Your task to perform on an android device: Go to display settings Image 0: 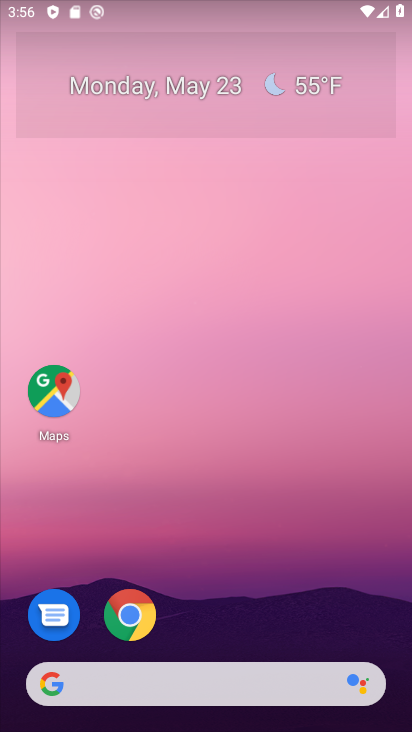
Step 0: drag from (385, 619) to (387, 132)
Your task to perform on an android device: Go to display settings Image 1: 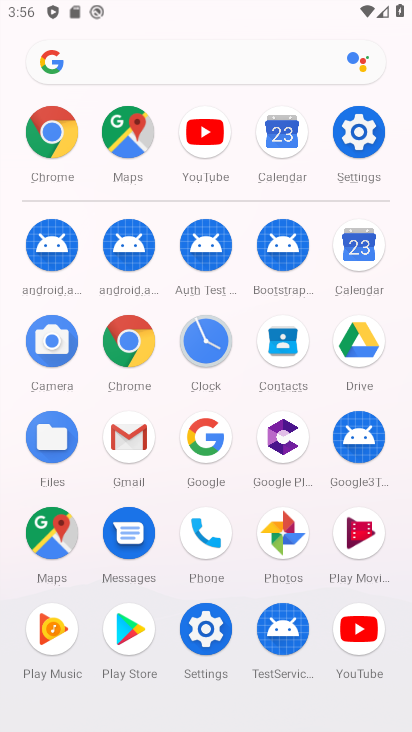
Step 1: click (213, 632)
Your task to perform on an android device: Go to display settings Image 2: 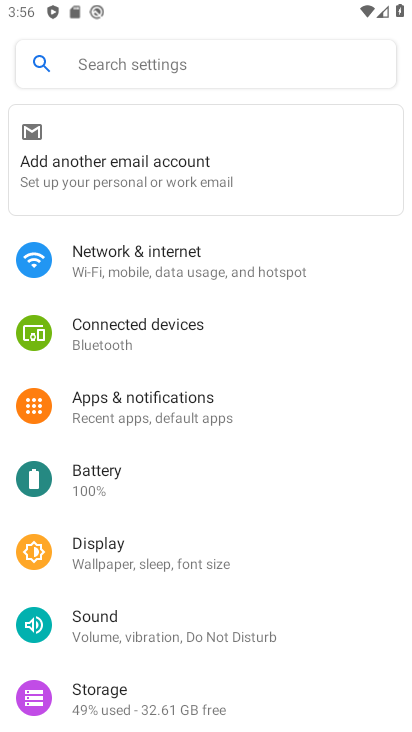
Step 2: drag from (348, 678) to (362, 561)
Your task to perform on an android device: Go to display settings Image 3: 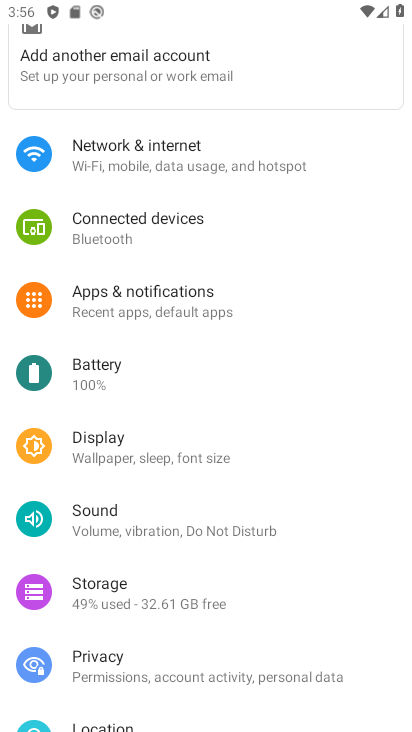
Step 3: drag from (350, 558) to (365, 421)
Your task to perform on an android device: Go to display settings Image 4: 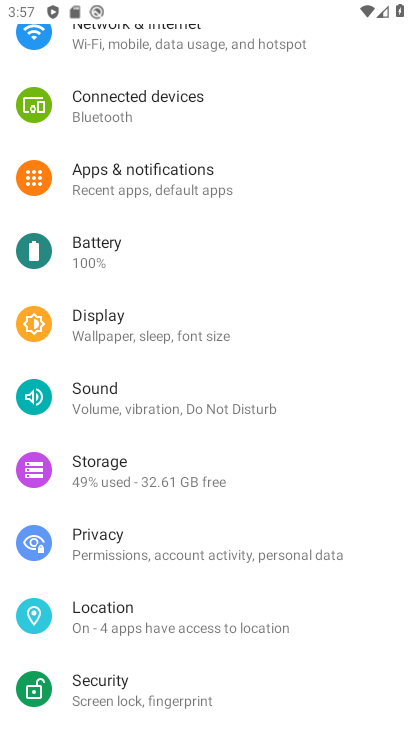
Step 4: drag from (343, 538) to (344, 451)
Your task to perform on an android device: Go to display settings Image 5: 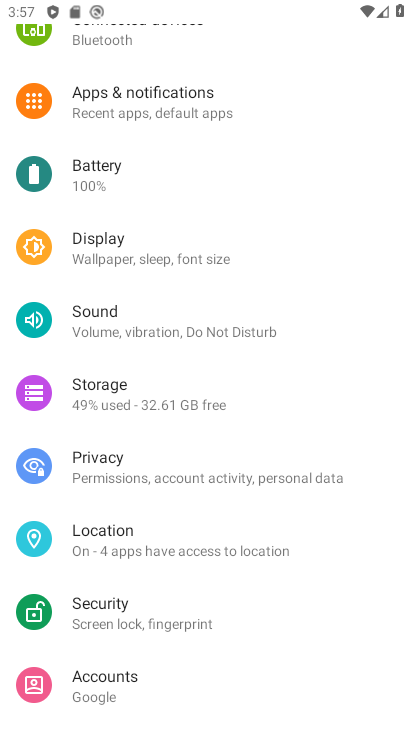
Step 5: drag from (339, 607) to (358, 489)
Your task to perform on an android device: Go to display settings Image 6: 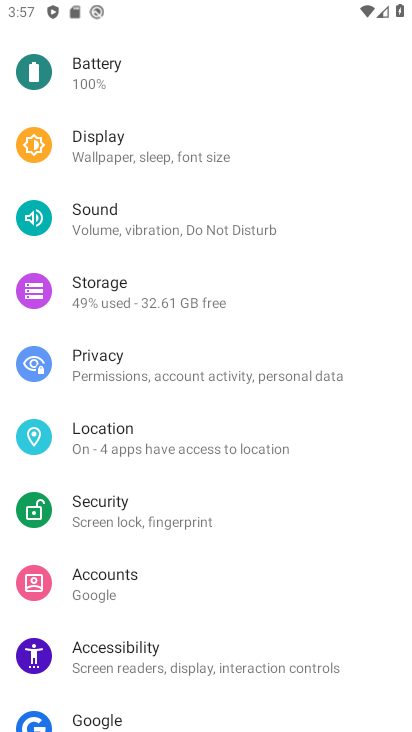
Step 6: drag from (350, 589) to (356, 465)
Your task to perform on an android device: Go to display settings Image 7: 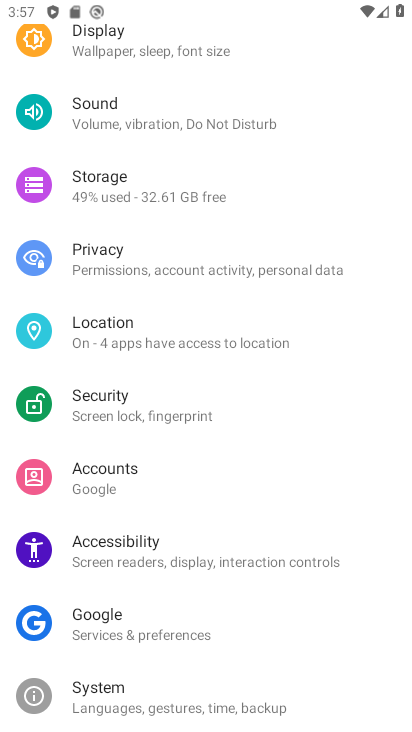
Step 7: drag from (345, 631) to (345, 485)
Your task to perform on an android device: Go to display settings Image 8: 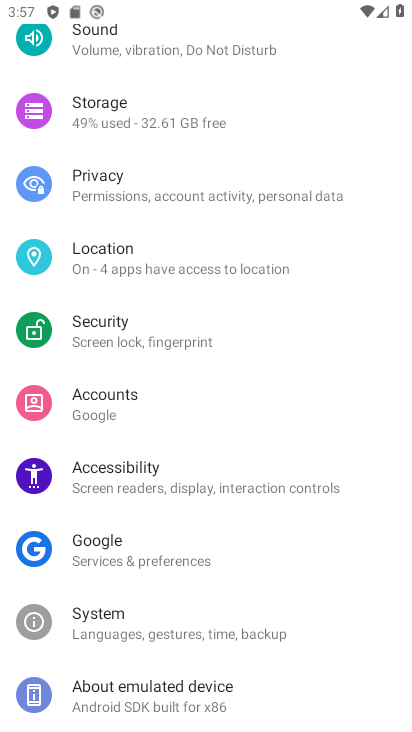
Step 8: drag from (336, 611) to (350, 491)
Your task to perform on an android device: Go to display settings Image 9: 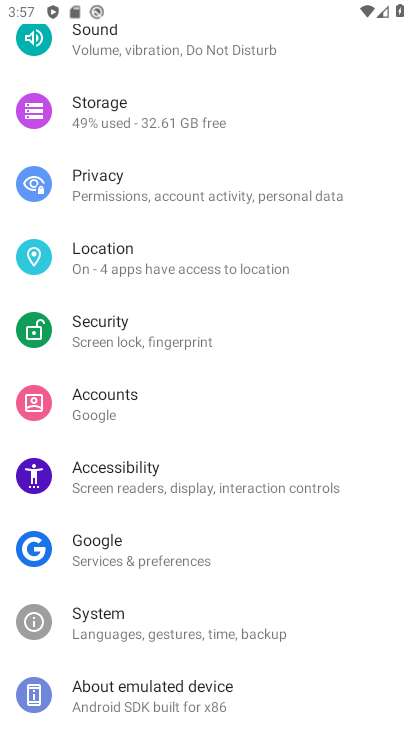
Step 9: drag from (357, 587) to (363, 426)
Your task to perform on an android device: Go to display settings Image 10: 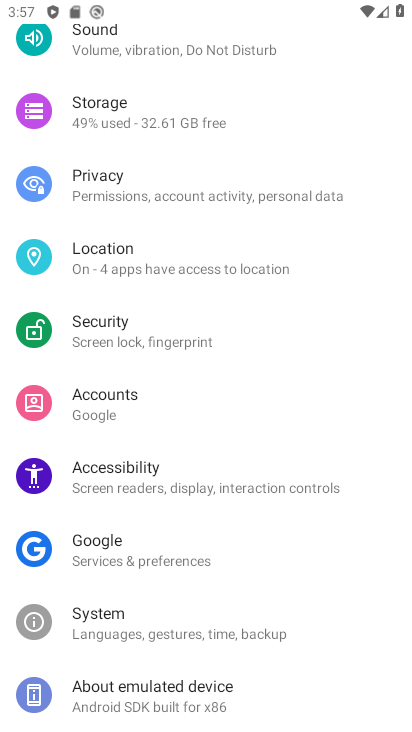
Step 10: drag from (368, 370) to (350, 500)
Your task to perform on an android device: Go to display settings Image 11: 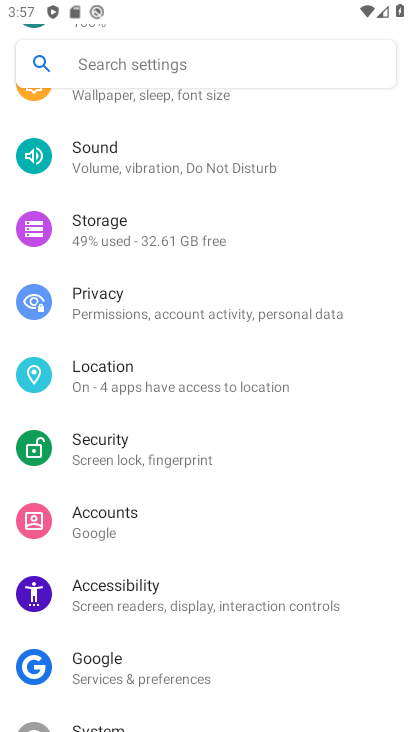
Step 11: drag from (363, 344) to (363, 446)
Your task to perform on an android device: Go to display settings Image 12: 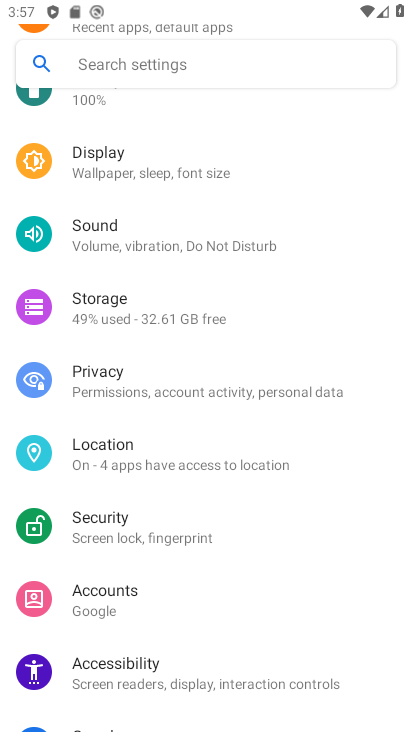
Step 12: drag from (358, 319) to (334, 452)
Your task to perform on an android device: Go to display settings Image 13: 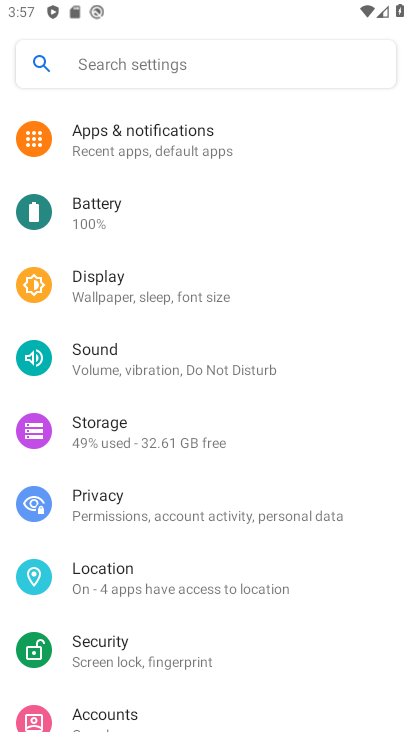
Step 13: drag from (329, 314) to (301, 445)
Your task to perform on an android device: Go to display settings Image 14: 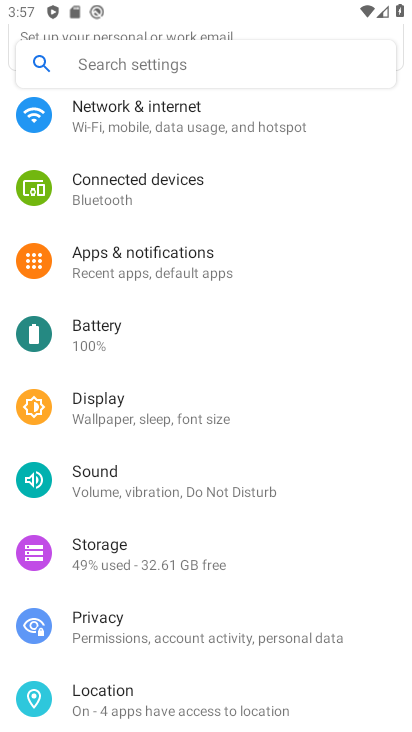
Step 14: click (223, 412)
Your task to perform on an android device: Go to display settings Image 15: 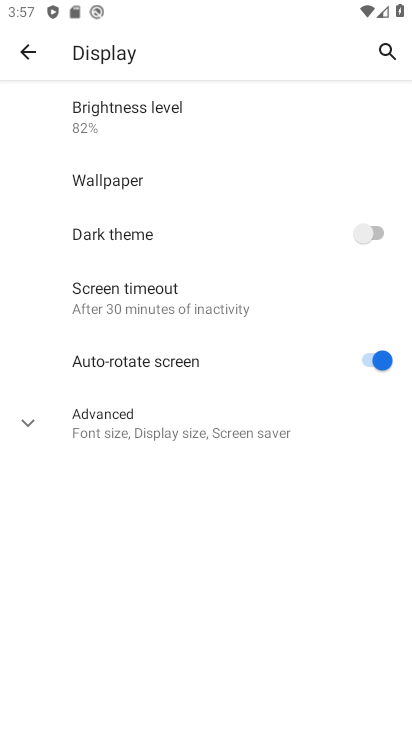
Step 15: click (196, 432)
Your task to perform on an android device: Go to display settings Image 16: 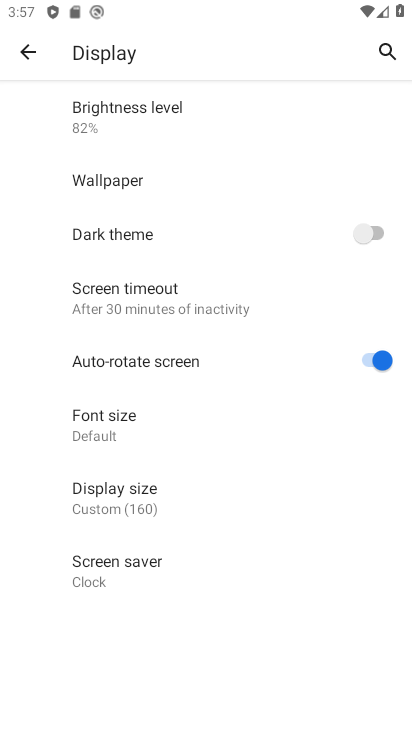
Step 16: task complete